Your task to perform on an android device: Open eBay Image 0: 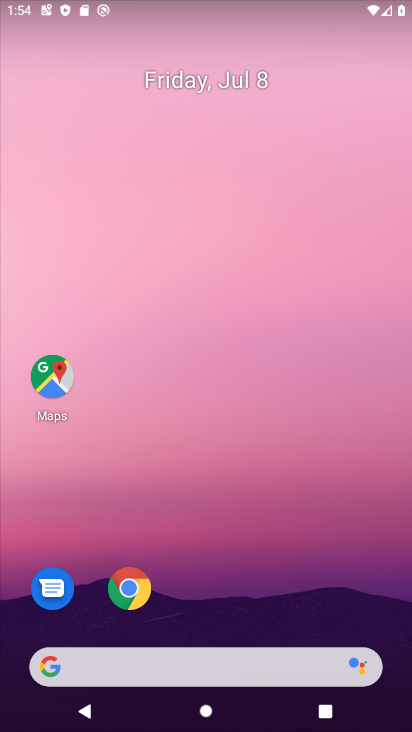
Step 0: press home button
Your task to perform on an android device: Open eBay Image 1: 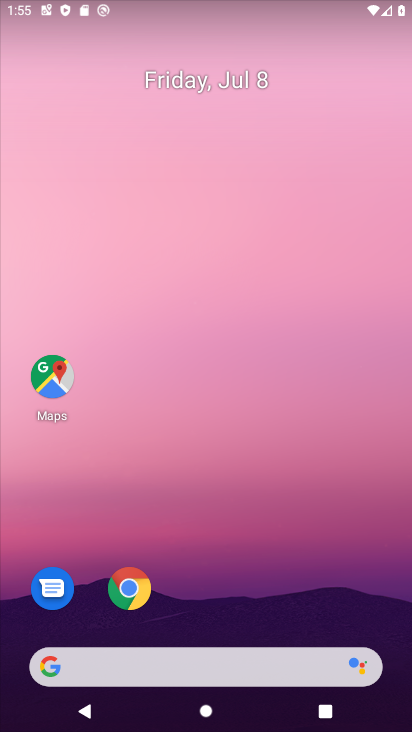
Step 1: click (45, 664)
Your task to perform on an android device: Open eBay Image 2: 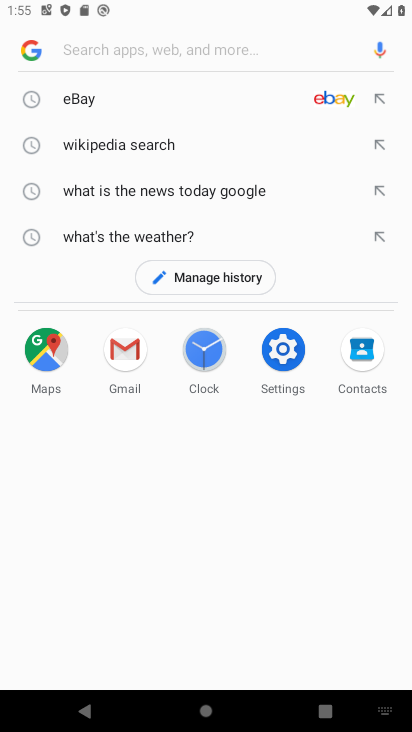
Step 2: click (92, 101)
Your task to perform on an android device: Open eBay Image 3: 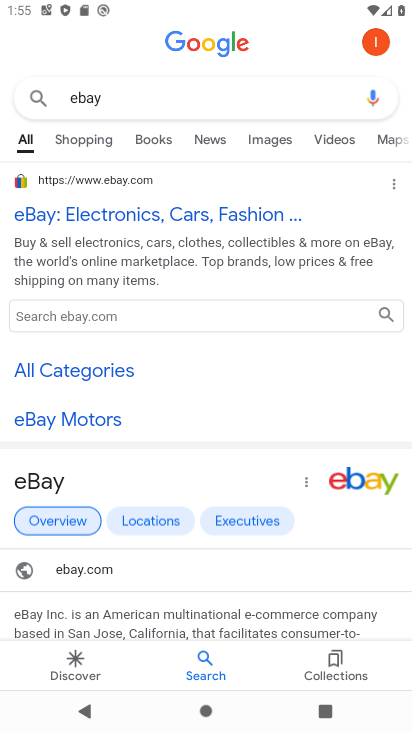
Step 3: click (132, 214)
Your task to perform on an android device: Open eBay Image 4: 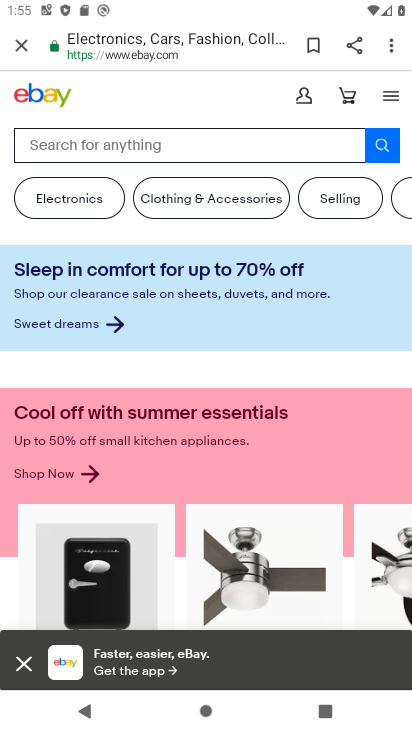
Step 4: task complete